Your task to perform on an android device: check storage Image 0: 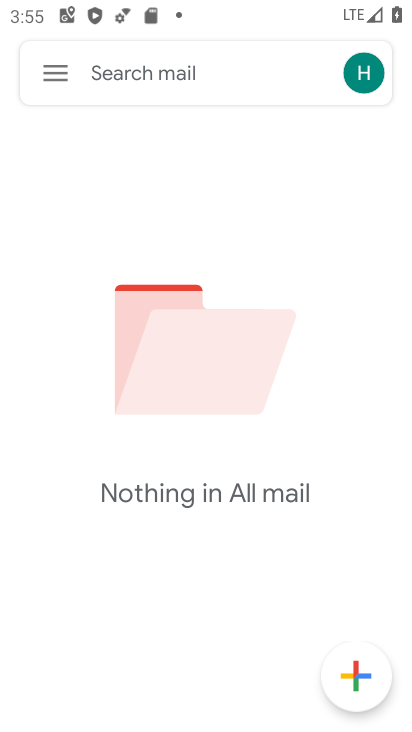
Step 0: press home button
Your task to perform on an android device: check storage Image 1: 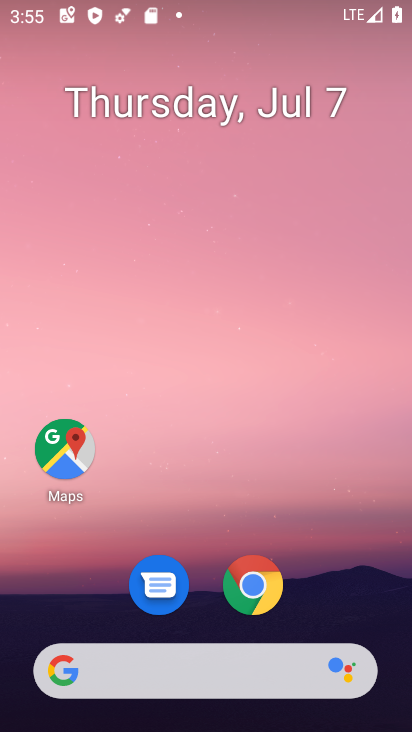
Step 1: drag from (216, 494) to (272, 18)
Your task to perform on an android device: check storage Image 2: 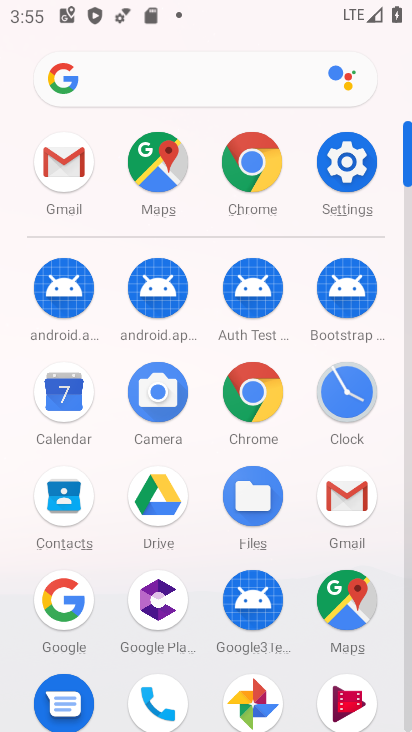
Step 2: click (364, 173)
Your task to perform on an android device: check storage Image 3: 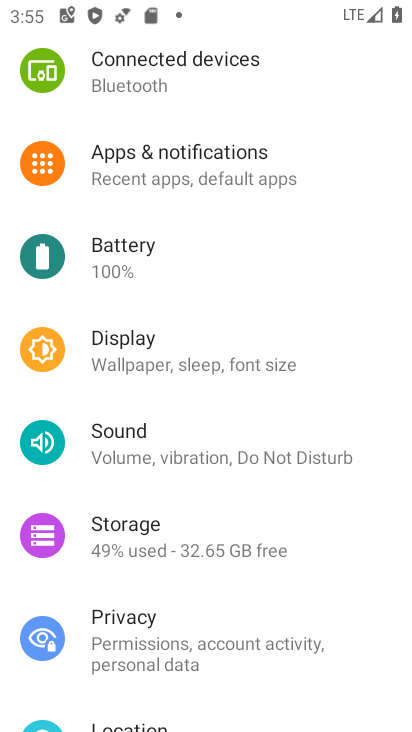
Step 3: click (188, 542)
Your task to perform on an android device: check storage Image 4: 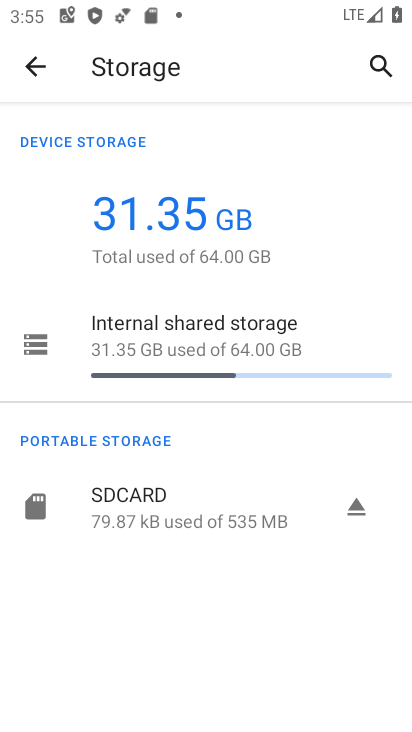
Step 4: task complete